Your task to perform on an android device: open chrome privacy settings Image 0: 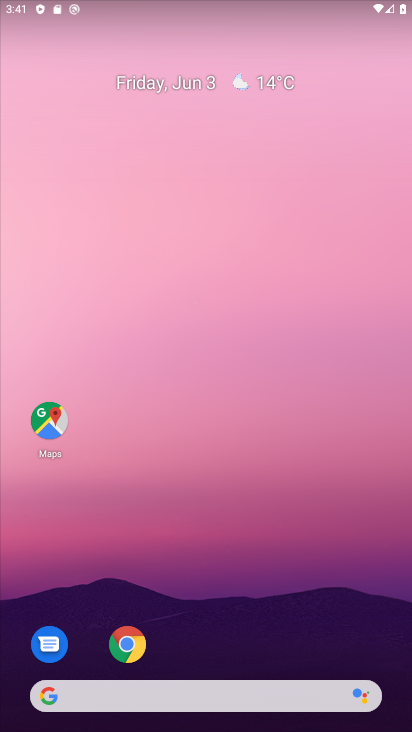
Step 0: drag from (227, 636) to (239, 93)
Your task to perform on an android device: open chrome privacy settings Image 1: 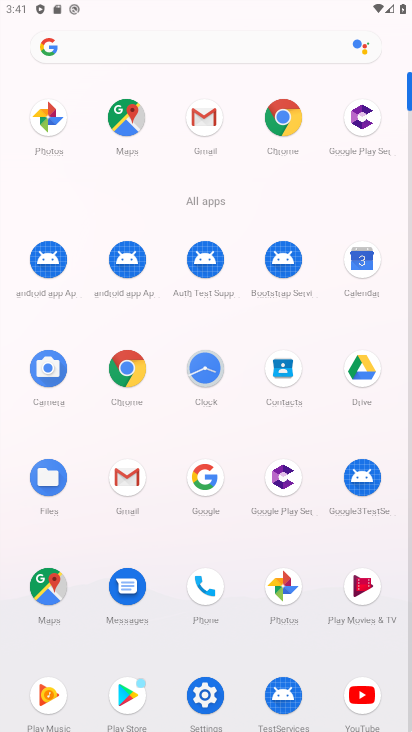
Step 1: click (204, 683)
Your task to perform on an android device: open chrome privacy settings Image 2: 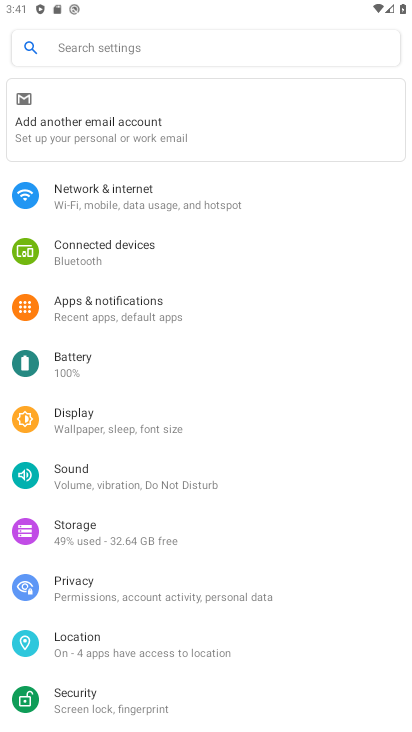
Step 2: click (152, 599)
Your task to perform on an android device: open chrome privacy settings Image 3: 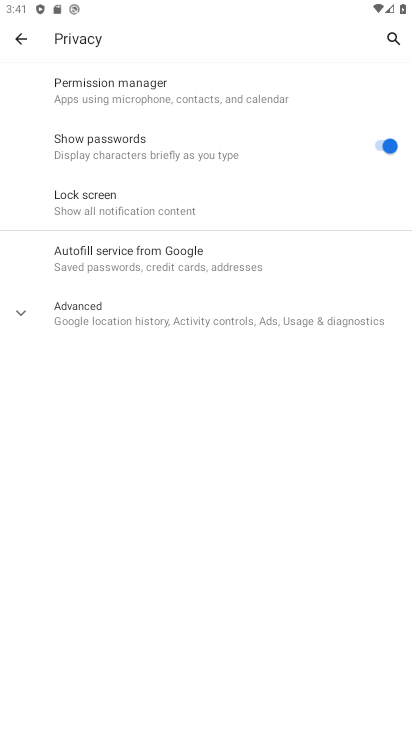
Step 3: task complete